Your task to perform on an android device: turn off location history Image 0: 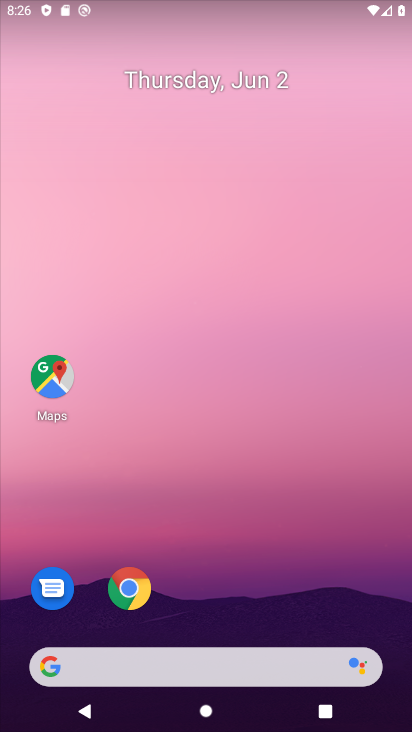
Step 0: drag from (346, 620) to (323, 204)
Your task to perform on an android device: turn off location history Image 1: 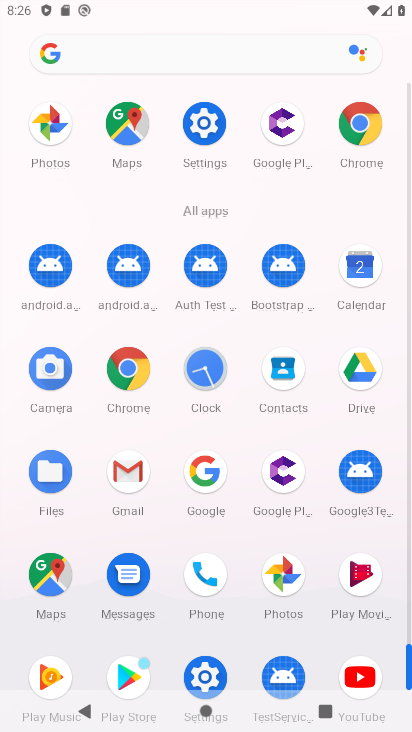
Step 1: click (194, 121)
Your task to perform on an android device: turn off location history Image 2: 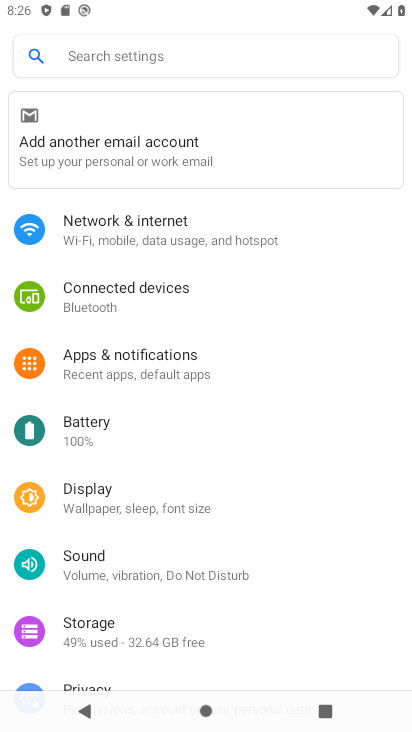
Step 2: drag from (194, 121) to (246, 44)
Your task to perform on an android device: turn off location history Image 3: 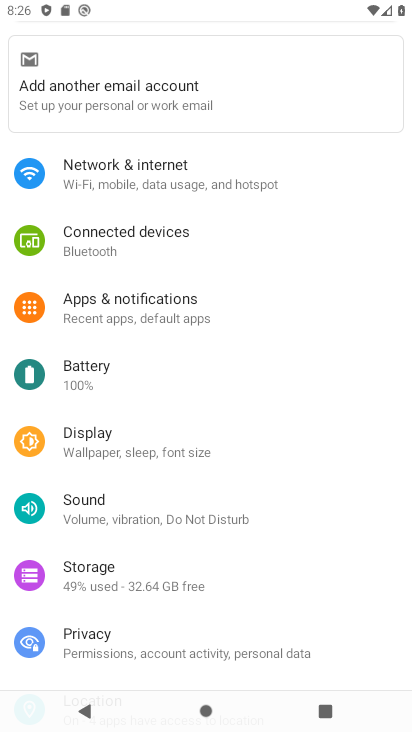
Step 3: drag from (222, 547) to (256, 272)
Your task to perform on an android device: turn off location history Image 4: 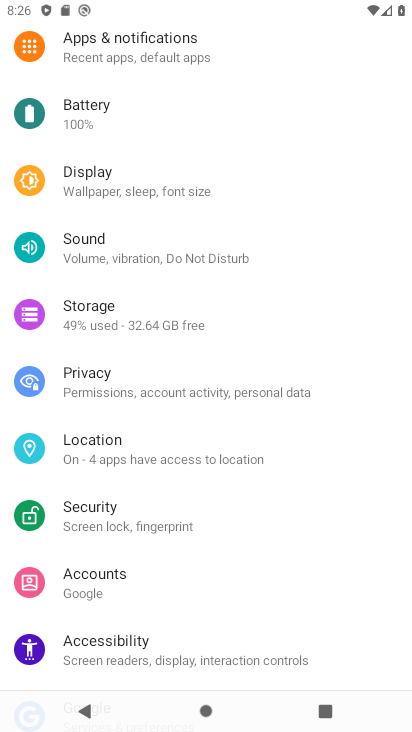
Step 4: click (192, 460)
Your task to perform on an android device: turn off location history Image 5: 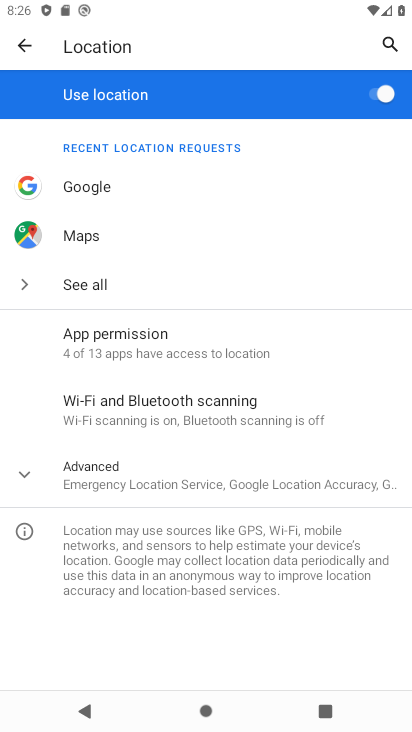
Step 5: click (185, 465)
Your task to perform on an android device: turn off location history Image 6: 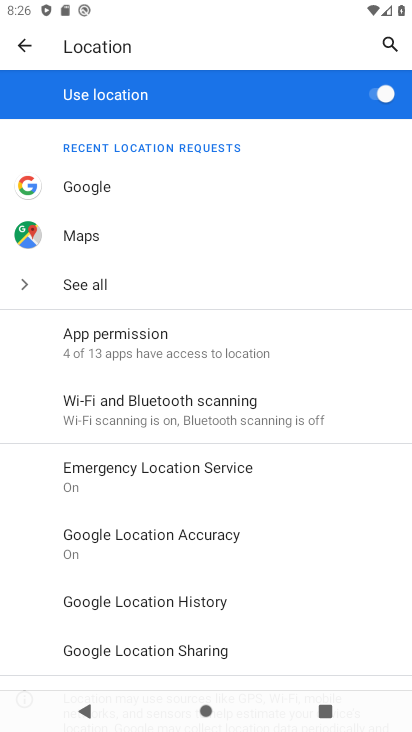
Step 6: drag from (185, 465) to (202, 339)
Your task to perform on an android device: turn off location history Image 7: 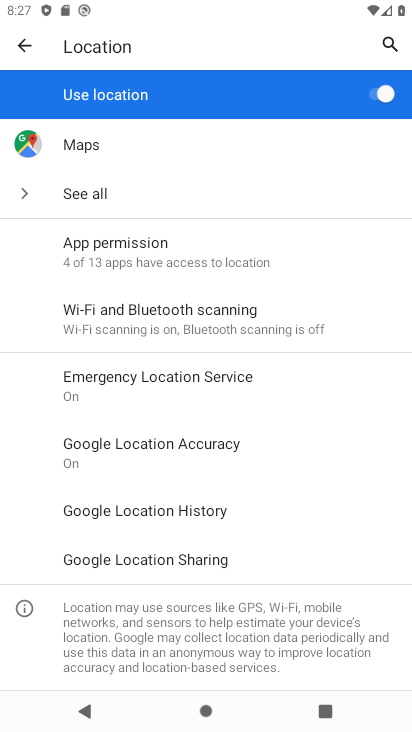
Step 7: click (202, 504)
Your task to perform on an android device: turn off location history Image 8: 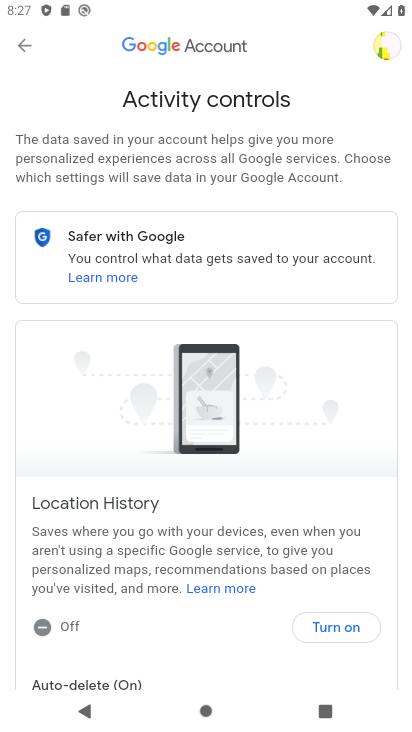
Step 8: task complete